Your task to perform on an android device: What's the weather going to be this weekend? Image 0: 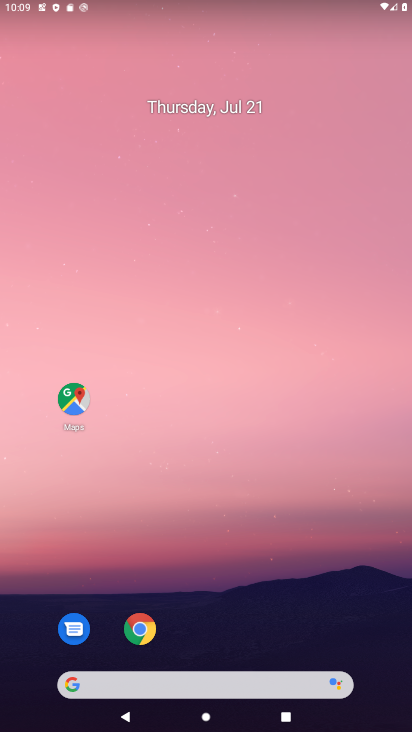
Step 0: click (69, 688)
Your task to perform on an android device: What's the weather going to be this weekend? Image 1: 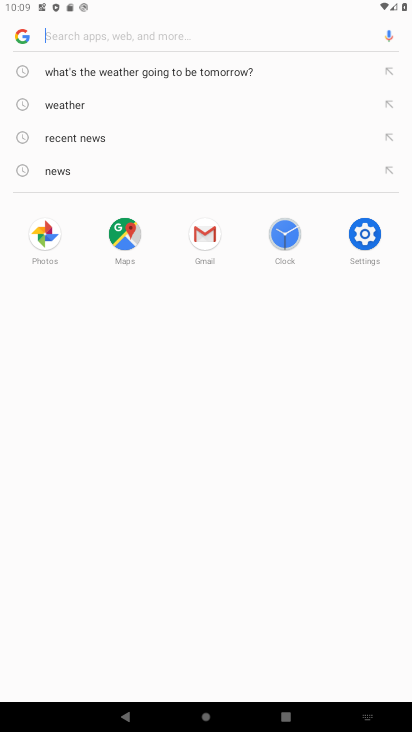
Step 1: type "What's the weather going to be this weekend?"
Your task to perform on an android device: What's the weather going to be this weekend? Image 2: 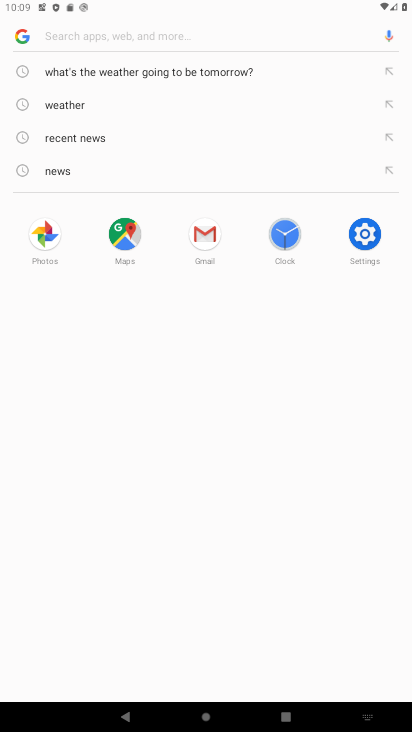
Step 2: click (182, 38)
Your task to perform on an android device: What's the weather going to be this weekend? Image 3: 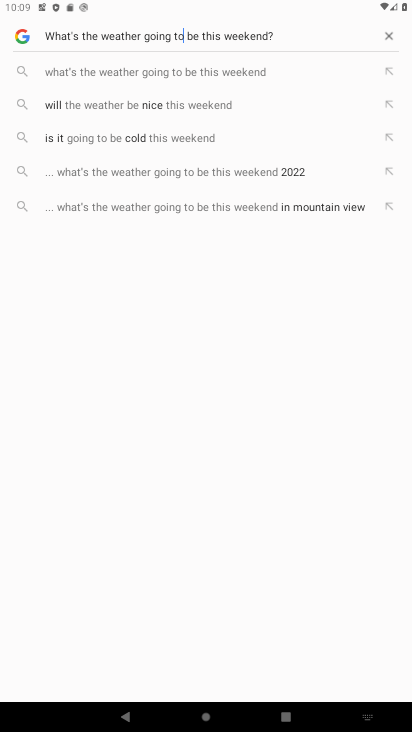
Step 3: press enter
Your task to perform on an android device: What's the weather going to be this weekend? Image 4: 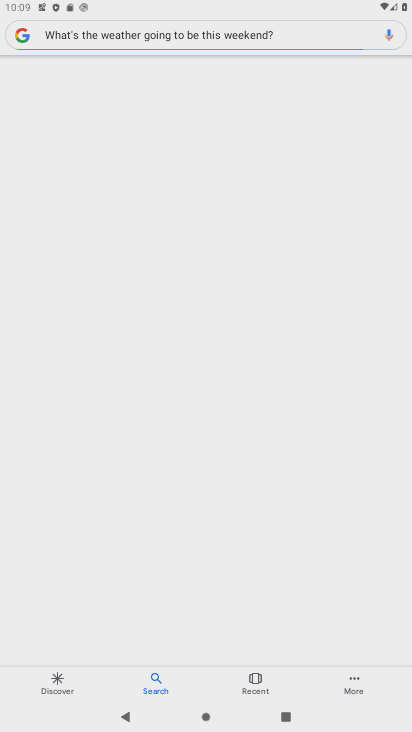
Step 4: press enter
Your task to perform on an android device: What's the weather going to be this weekend? Image 5: 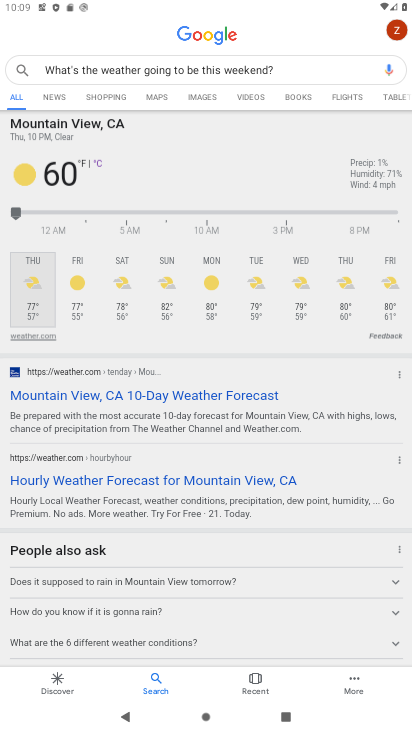
Step 5: task complete